Your task to perform on an android device: delete the emails in spam in the gmail app Image 0: 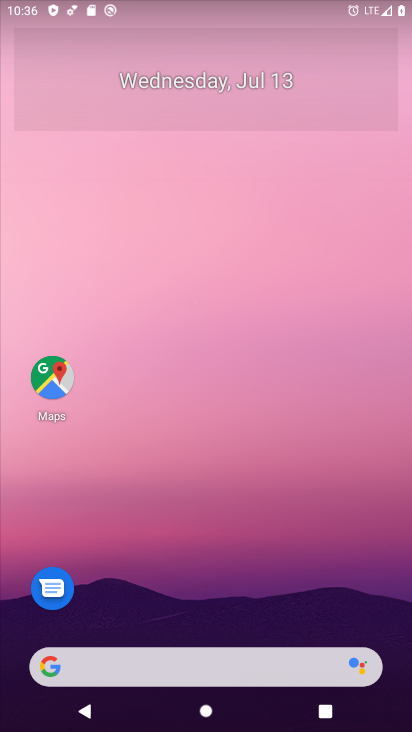
Step 0: drag from (265, 357) to (309, 21)
Your task to perform on an android device: delete the emails in spam in the gmail app Image 1: 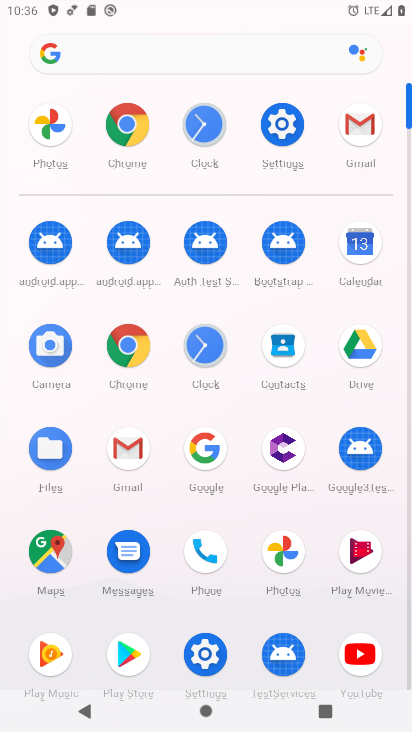
Step 1: click (377, 134)
Your task to perform on an android device: delete the emails in spam in the gmail app Image 2: 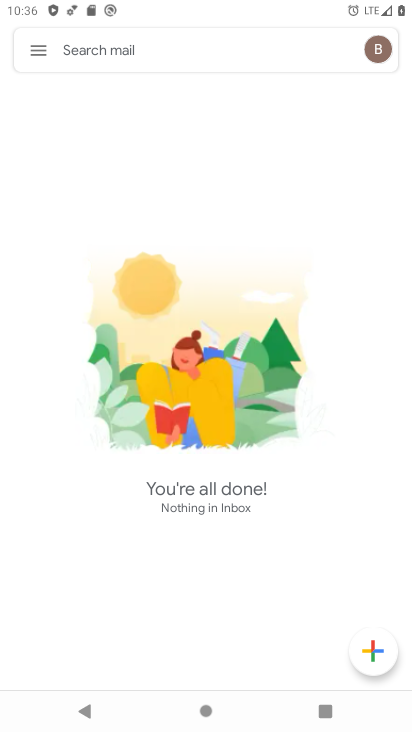
Step 2: click (26, 48)
Your task to perform on an android device: delete the emails in spam in the gmail app Image 3: 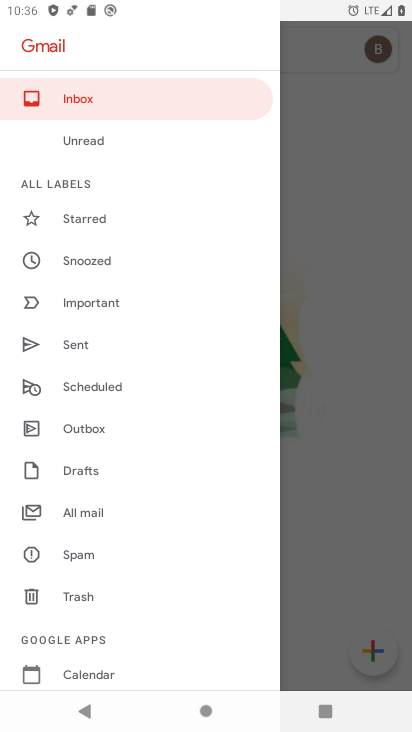
Step 3: click (113, 547)
Your task to perform on an android device: delete the emails in spam in the gmail app Image 4: 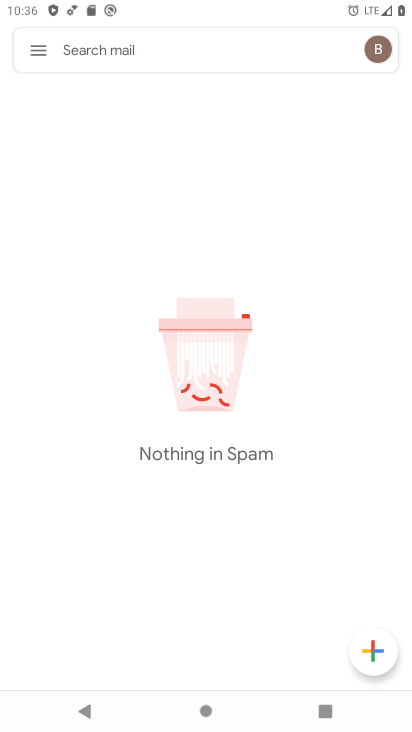
Step 4: task complete